Your task to perform on an android device: Open accessibility settings Image 0: 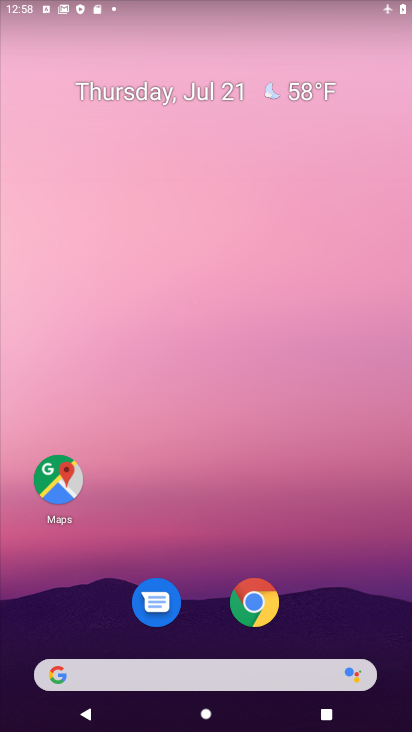
Step 0: drag from (361, 625) to (230, 16)
Your task to perform on an android device: Open accessibility settings Image 1: 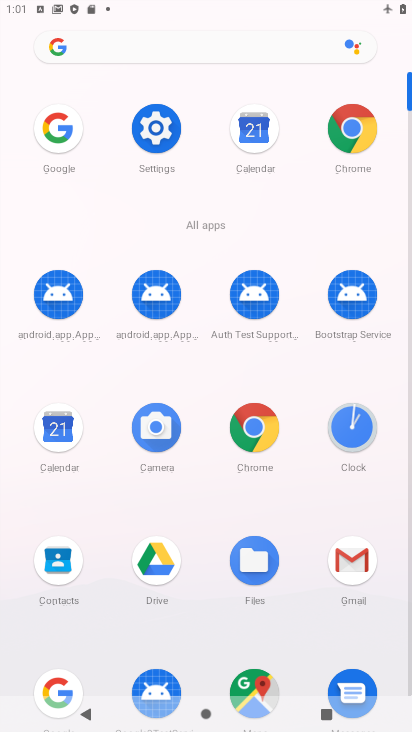
Step 1: click (142, 149)
Your task to perform on an android device: Open accessibility settings Image 2: 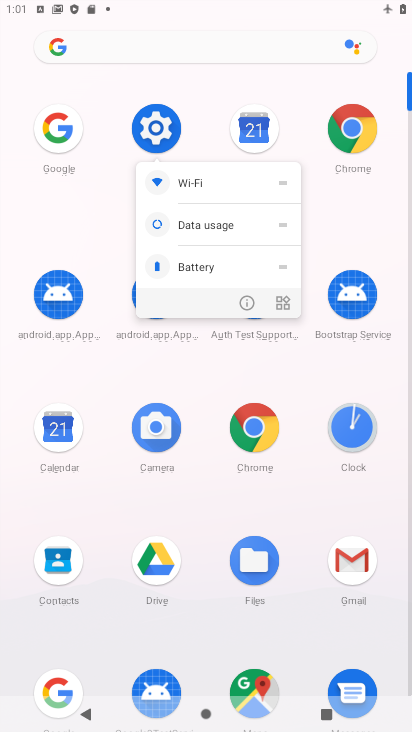
Step 2: click (142, 149)
Your task to perform on an android device: Open accessibility settings Image 3: 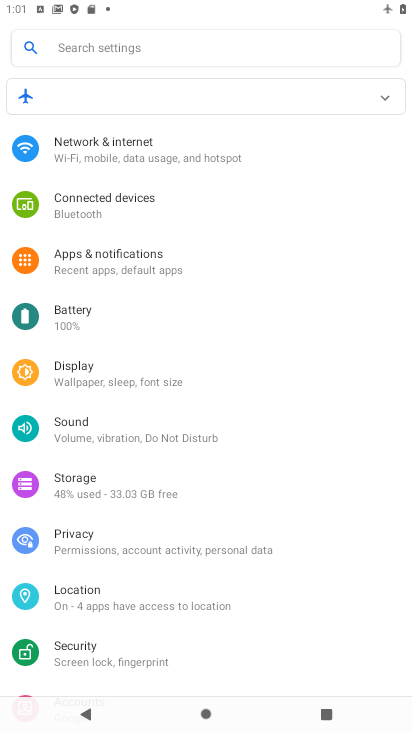
Step 3: drag from (123, 622) to (215, 134)
Your task to perform on an android device: Open accessibility settings Image 4: 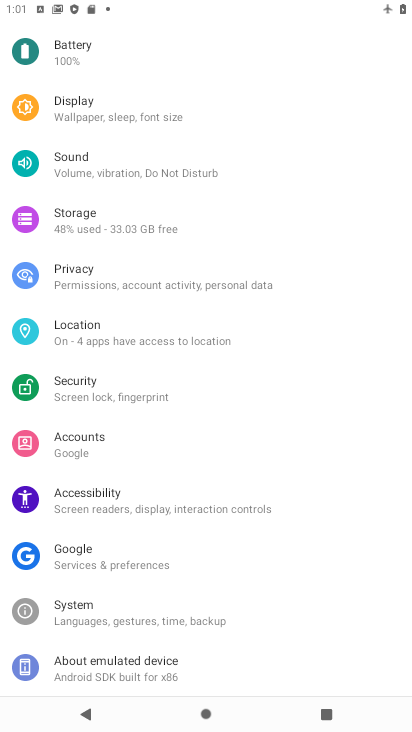
Step 4: click (66, 493)
Your task to perform on an android device: Open accessibility settings Image 5: 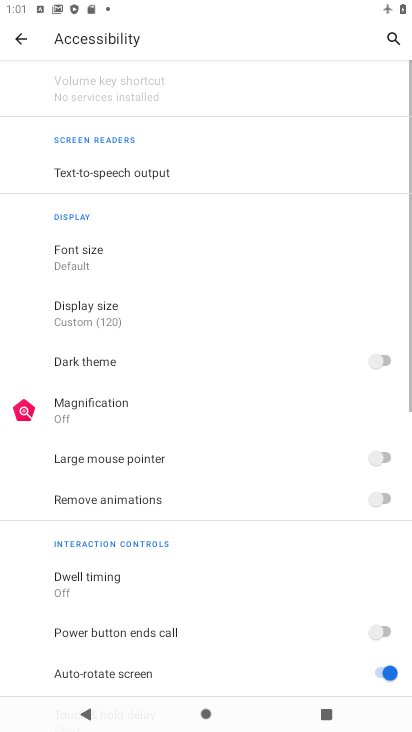
Step 5: task complete